Your task to perform on an android device: turn off wifi Image 0: 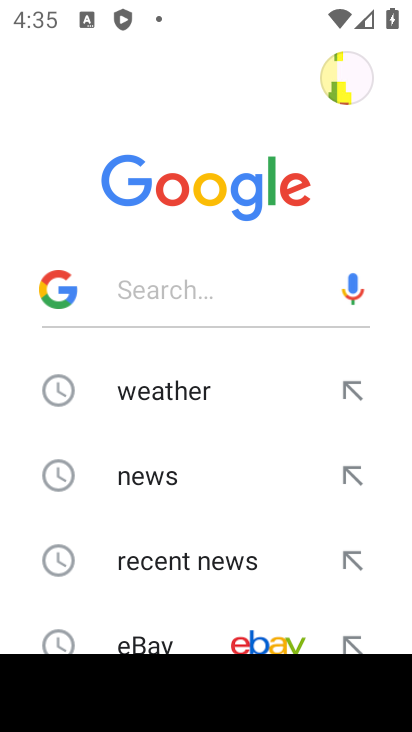
Step 0: press back button
Your task to perform on an android device: turn off wifi Image 1: 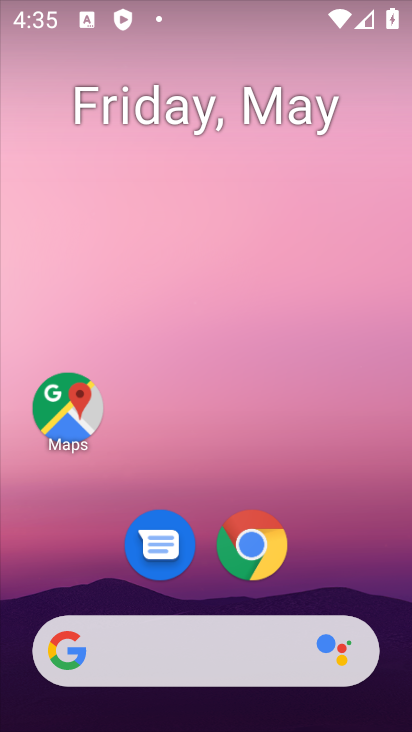
Step 1: drag from (325, 587) to (313, 81)
Your task to perform on an android device: turn off wifi Image 2: 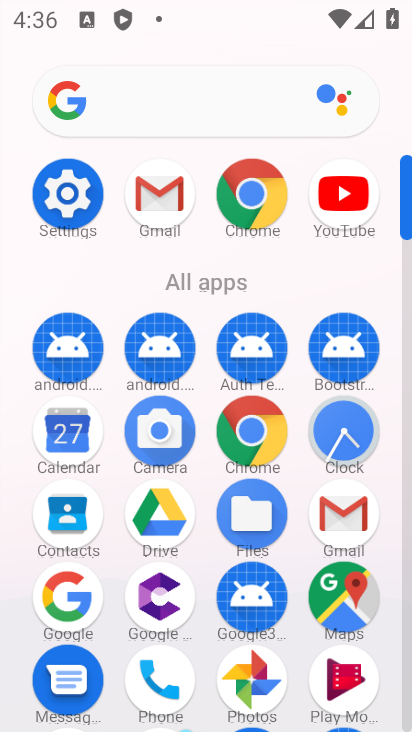
Step 2: click (51, 196)
Your task to perform on an android device: turn off wifi Image 3: 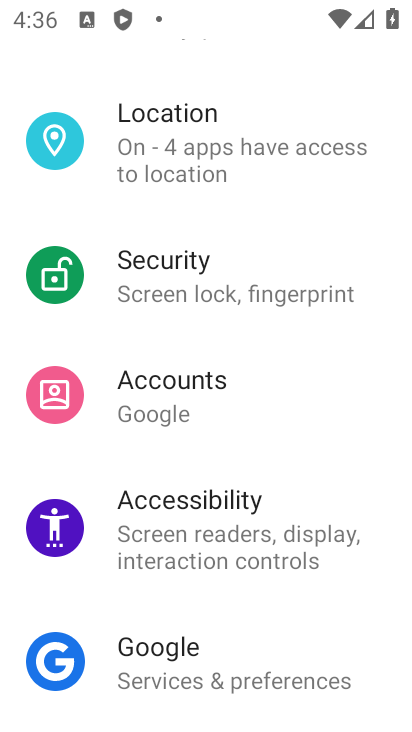
Step 3: drag from (308, 193) to (311, 668)
Your task to perform on an android device: turn off wifi Image 4: 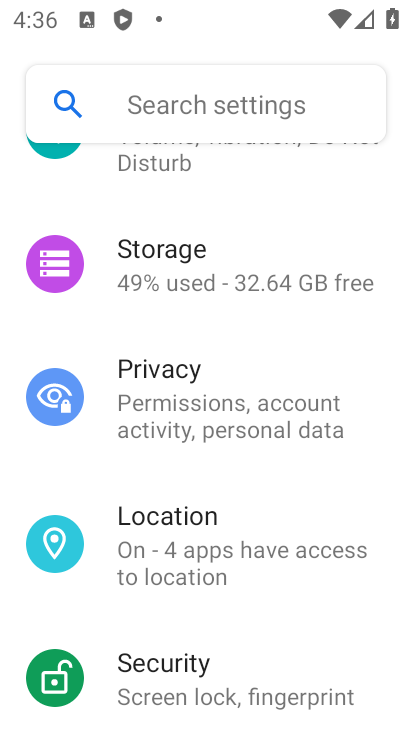
Step 4: drag from (288, 175) to (314, 711)
Your task to perform on an android device: turn off wifi Image 5: 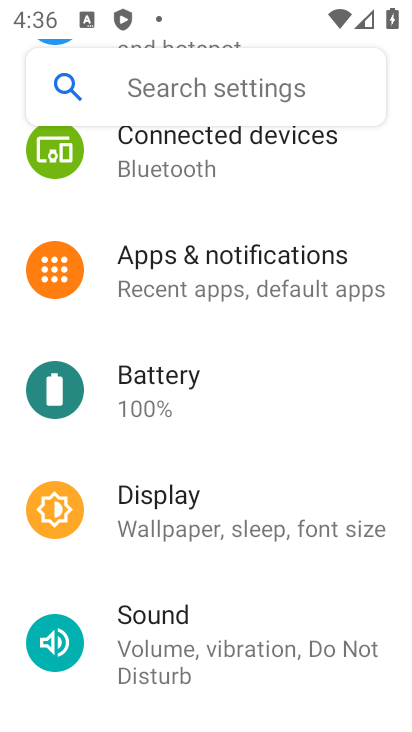
Step 5: drag from (263, 200) to (406, 380)
Your task to perform on an android device: turn off wifi Image 6: 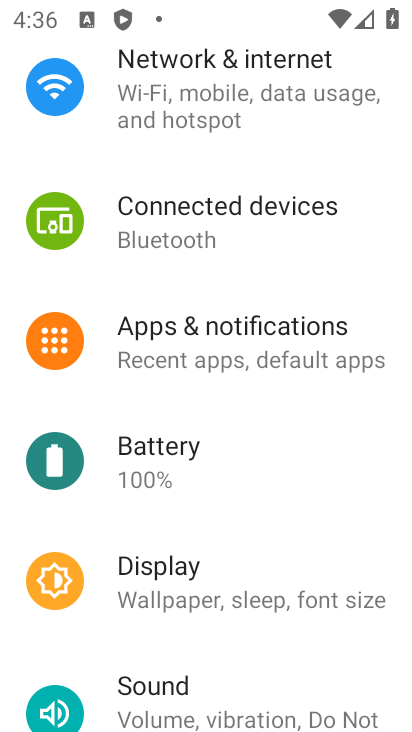
Step 6: click (190, 96)
Your task to perform on an android device: turn off wifi Image 7: 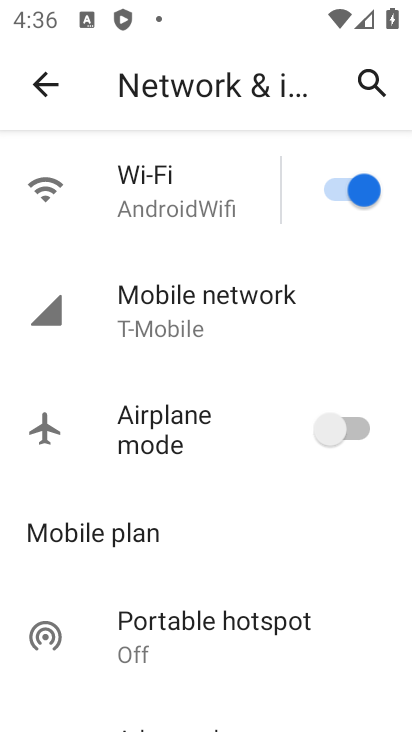
Step 7: click (360, 194)
Your task to perform on an android device: turn off wifi Image 8: 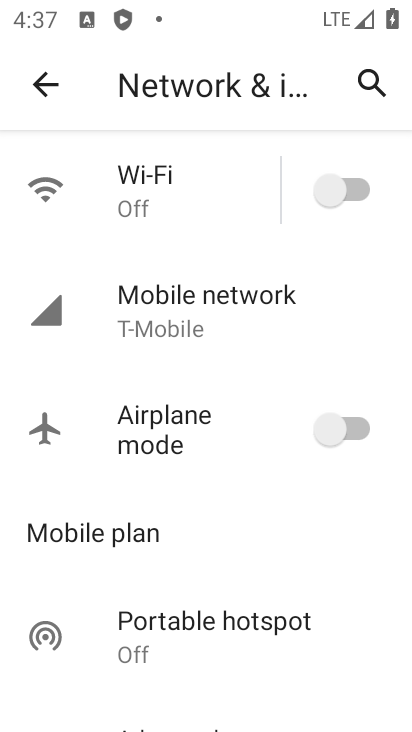
Step 8: task complete